Your task to perform on an android device: Open Reddit.com Image 0: 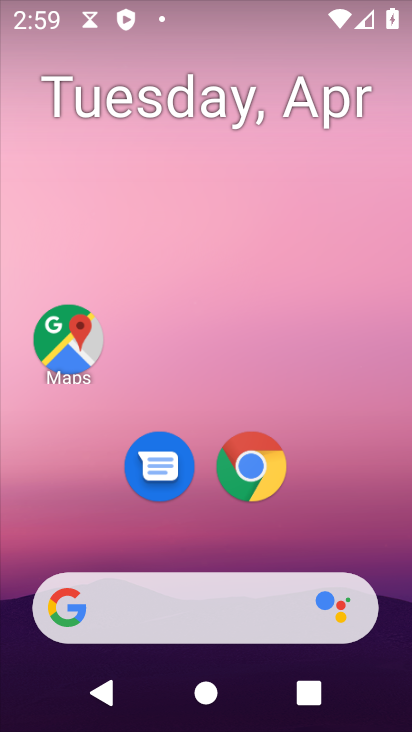
Step 0: drag from (331, 478) to (222, 47)
Your task to perform on an android device: Open Reddit.com Image 1: 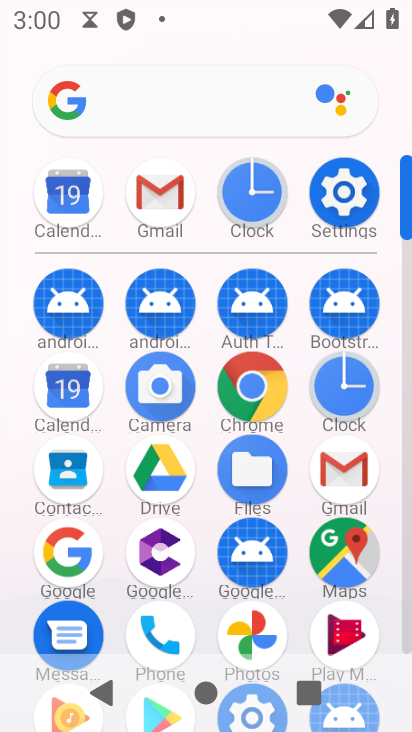
Step 1: click (249, 378)
Your task to perform on an android device: Open Reddit.com Image 2: 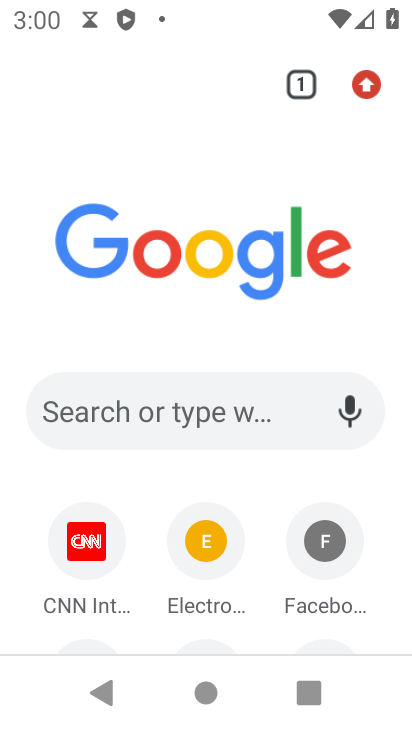
Step 2: click (215, 393)
Your task to perform on an android device: Open Reddit.com Image 3: 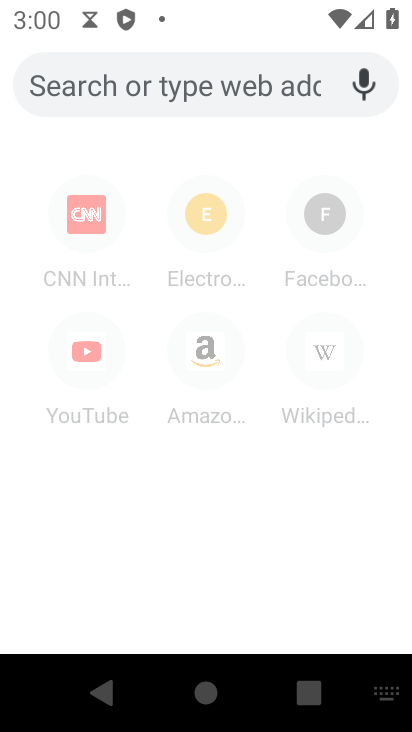
Step 3: click (187, 85)
Your task to perform on an android device: Open Reddit.com Image 4: 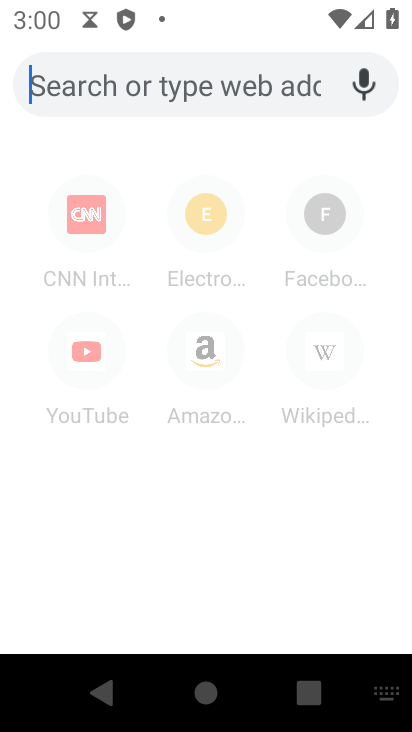
Step 4: type " Reddit.com"
Your task to perform on an android device: Open Reddit.com Image 5: 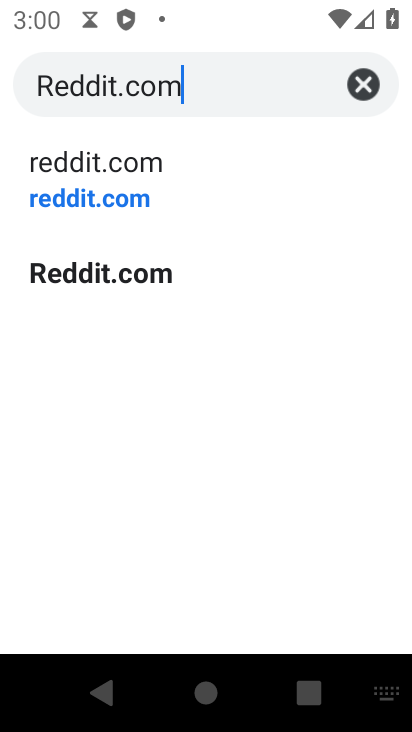
Step 5: type ""
Your task to perform on an android device: Open Reddit.com Image 6: 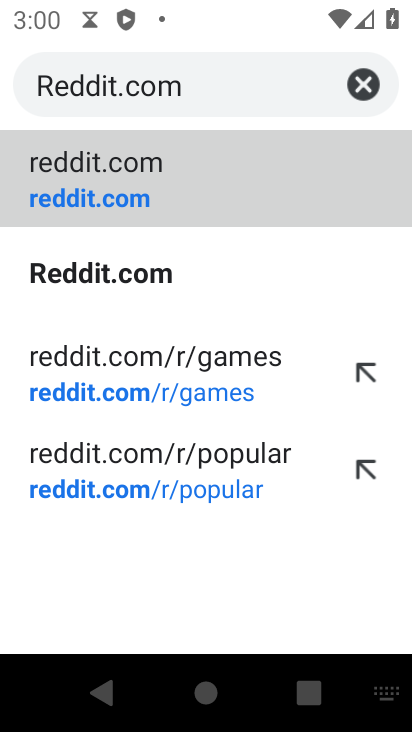
Step 6: click (199, 195)
Your task to perform on an android device: Open Reddit.com Image 7: 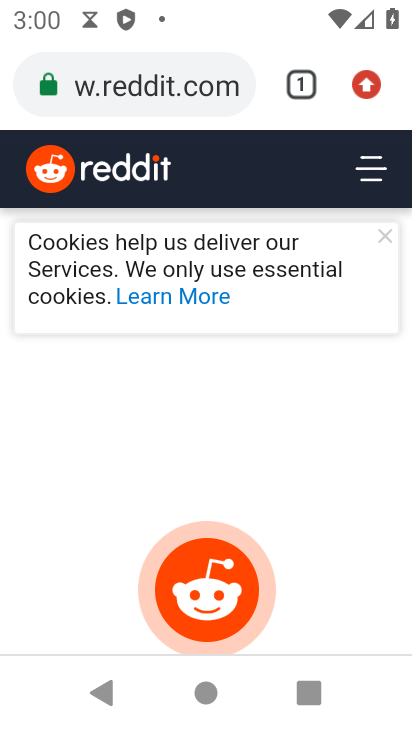
Step 7: task complete